Your task to perform on an android device: Go to display settings Image 0: 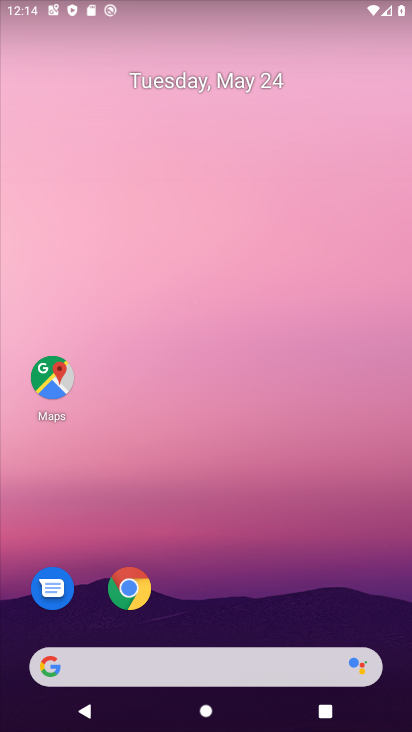
Step 0: drag from (234, 566) to (218, 217)
Your task to perform on an android device: Go to display settings Image 1: 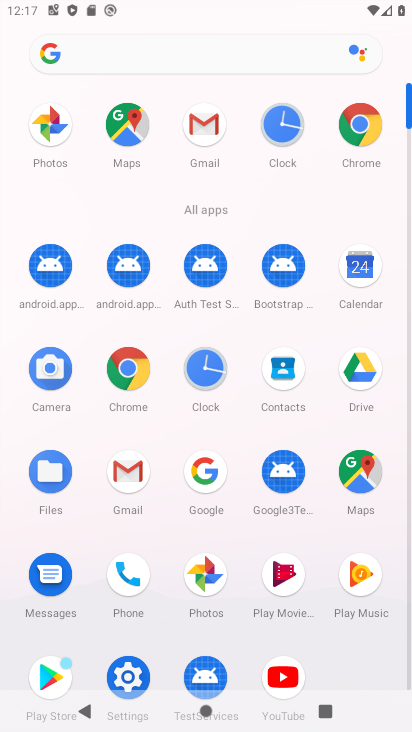
Step 1: drag from (177, 629) to (241, 323)
Your task to perform on an android device: Go to display settings Image 2: 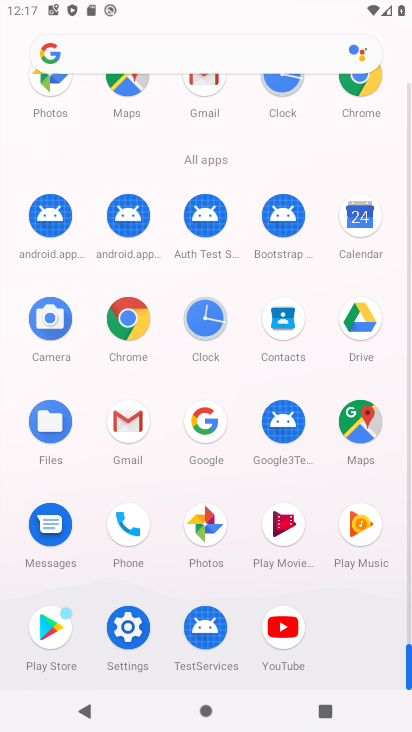
Step 2: click (125, 624)
Your task to perform on an android device: Go to display settings Image 3: 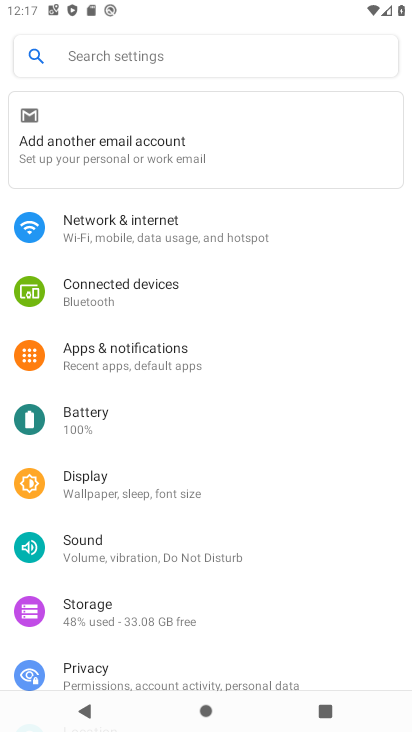
Step 3: click (120, 500)
Your task to perform on an android device: Go to display settings Image 4: 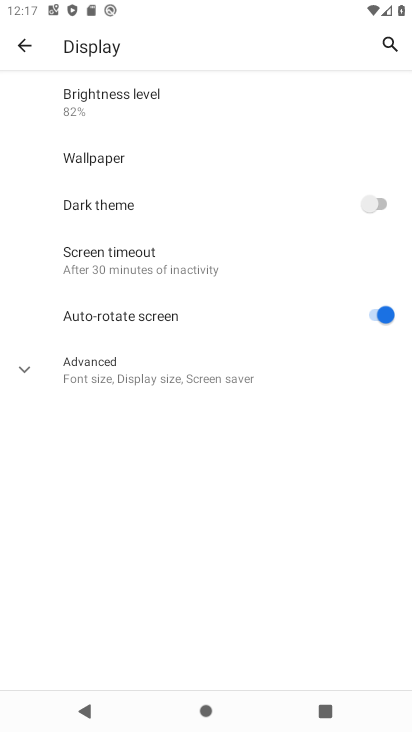
Step 4: task complete